Your task to perform on an android device: change text size in settings app Image 0: 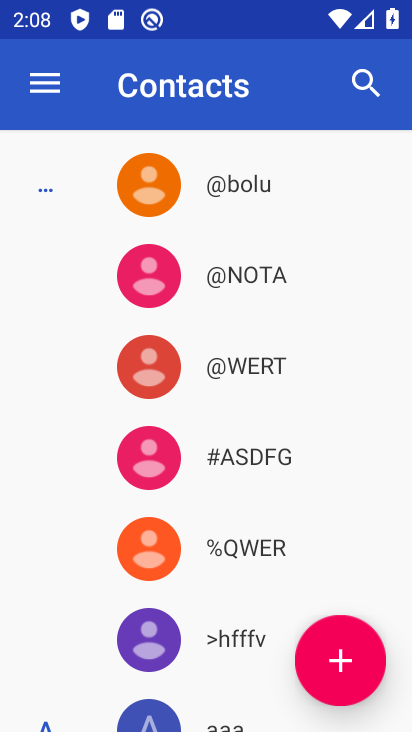
Step 0: press home button
Your task to perform on an android device: change text size in settings app Image 1: 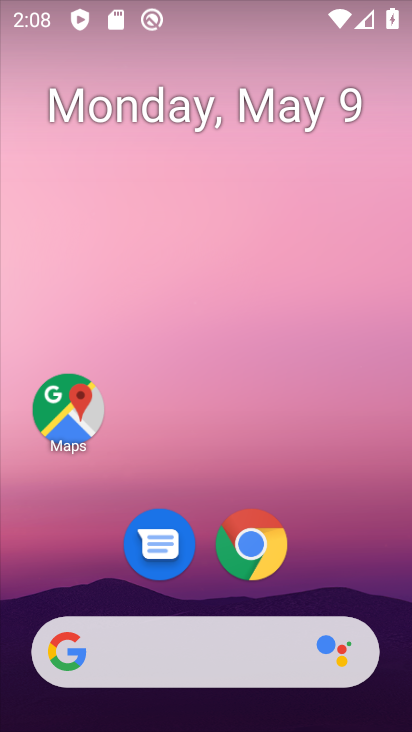
Step 1: drag from (208, 580) to (222, 172)
Your task to perform on an android device: change text size in settings app Image 2: 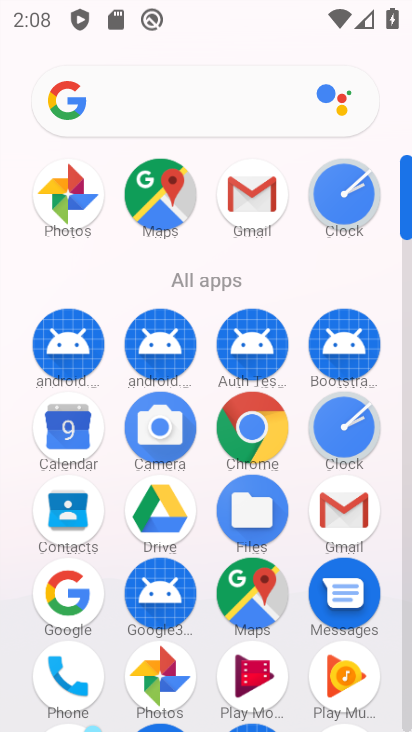
Step 2: drag from (209, 580) to (273, 283)
Your task to perform on an android device: change text size in settings app Image 3: 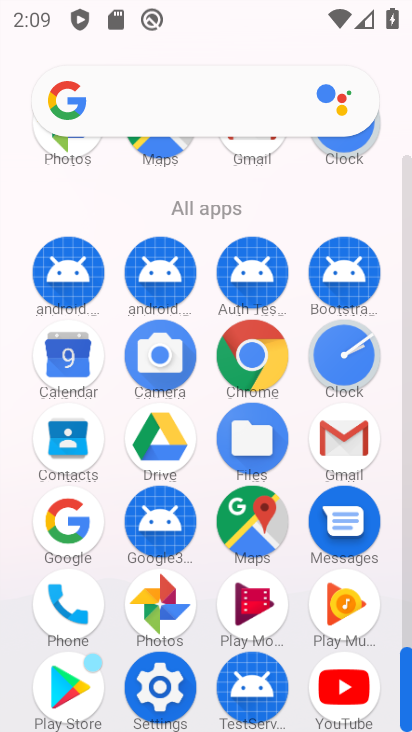
Step 3: drag from (237, 591) to (267, 358)
Your task to perform on an android device: change text size in settings app Image 4: 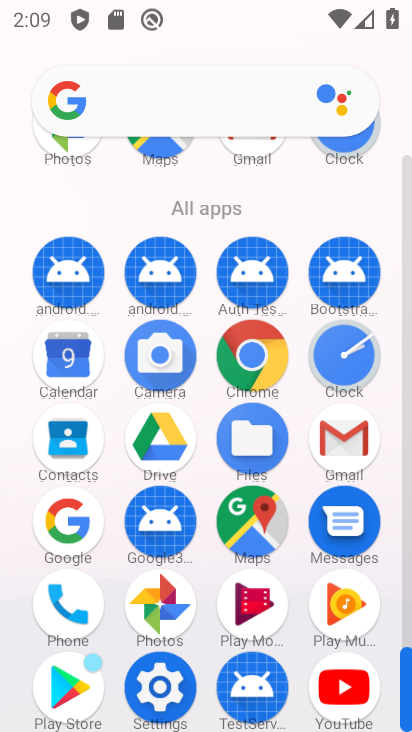
Step 4: click (174, 644)
Your task to perform on an android device: change text size in settings app Image 5: 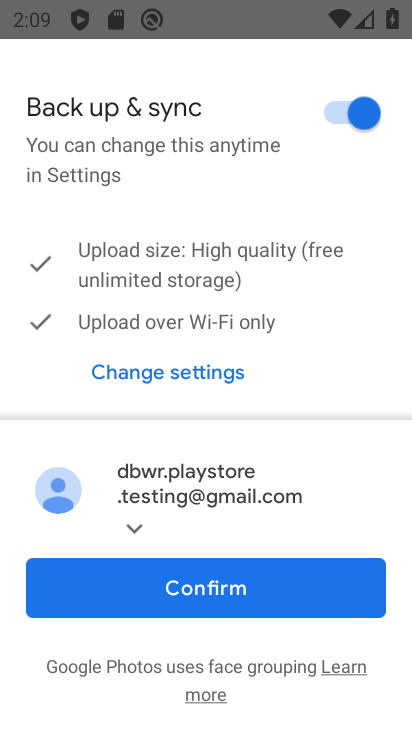
Step 5: click (191, 573)
Your task to perform on an android device: change text size in settings app Image 6: 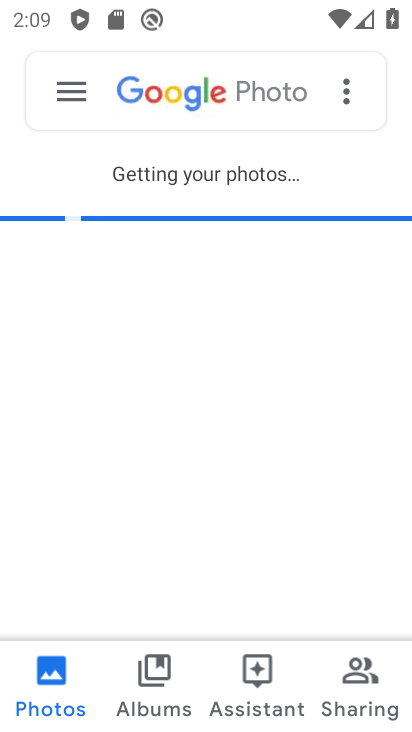
Step 6: press home button
Your task to perform on an android device: change text size in settings app Image 7: 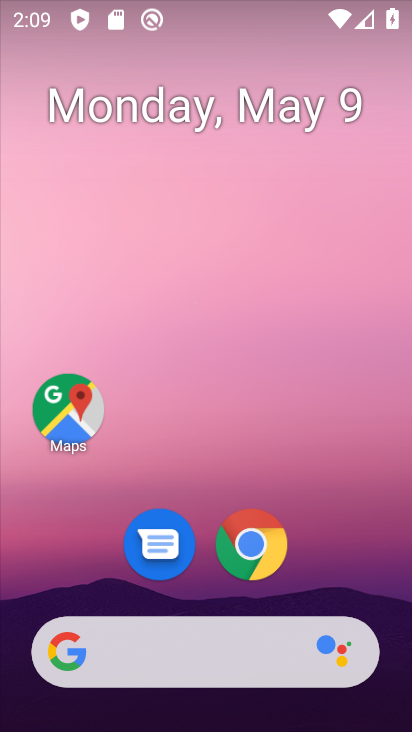
Step 7: drag from (223, 453) to (239, 138)
Your task to perform on an android device: change text size in settings app Image 8: 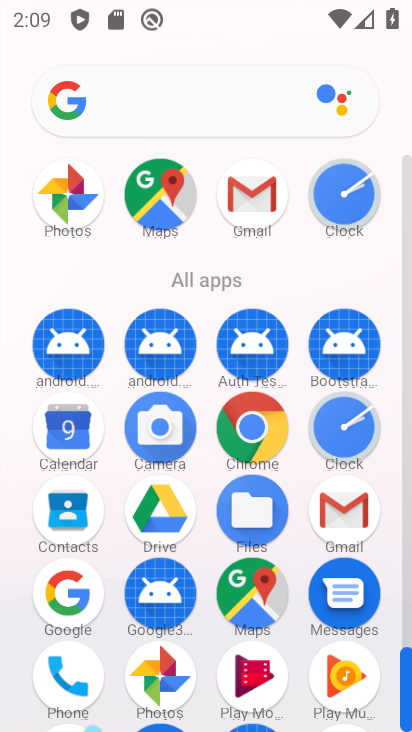
Step 8: drag from (202, 521) to (256, 249)
Your task to perform on an android device: change text size in settings app Image 9: 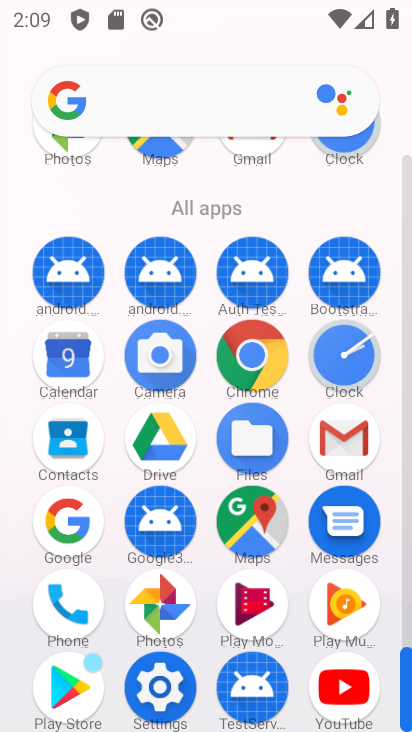
Step 9: click (177, 647)
Your task to perform on an android device: change text size in settings app Image 10: 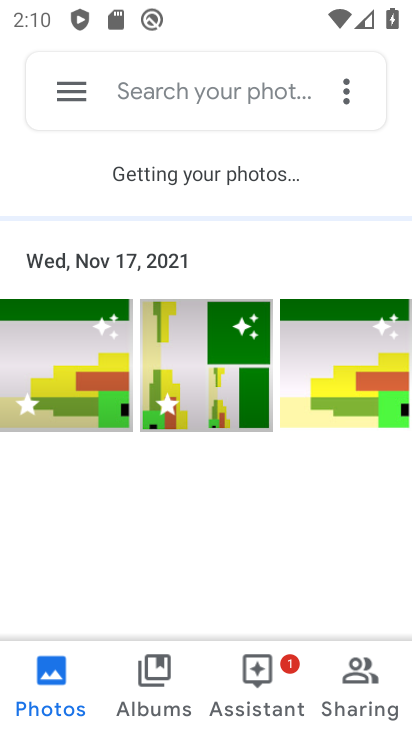
Step 10: press home button
Your task to perform on an android device: change text size in settings app Image 11: 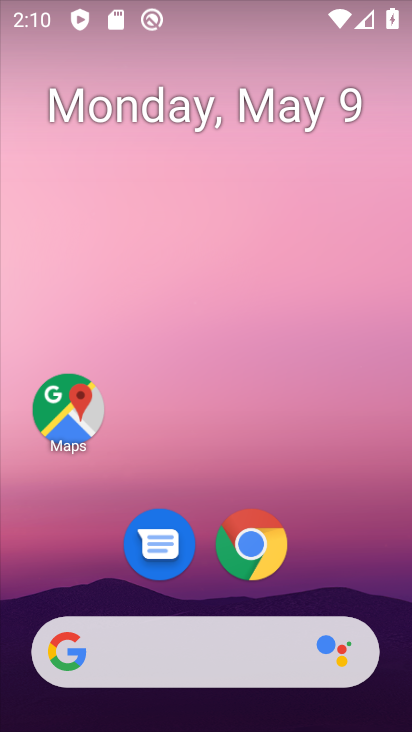
Step 11: drag from (195, 575) to (222, 95)
Your task to perform on an android device: change text size in settings app Image 12: 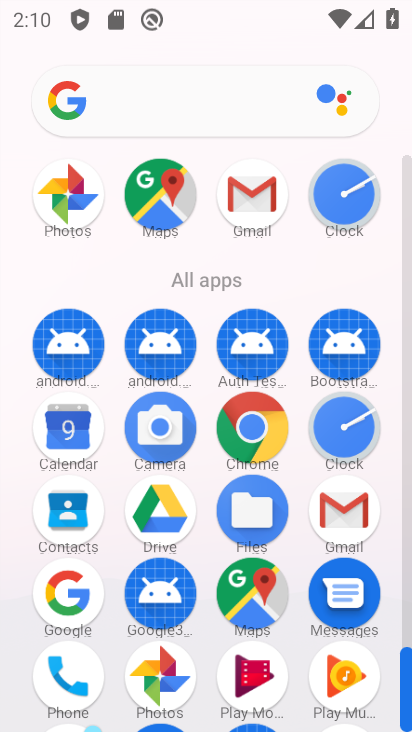
Step 12: drag from (196, 558) to (238, 156)
Your task to perform on an android device: change text size in settings app Image 13: 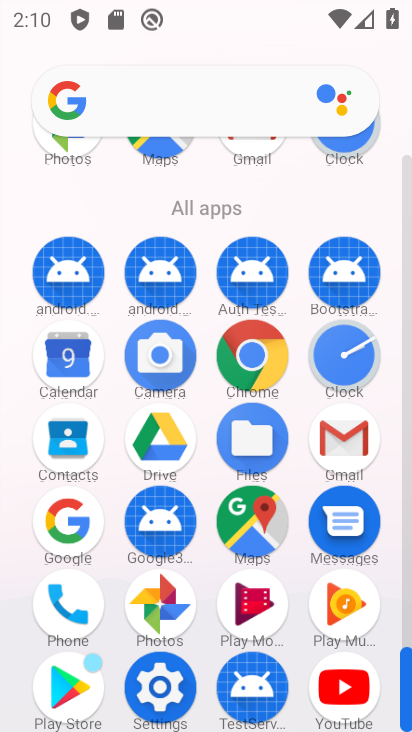
Step 13: click (158, 670)
Your task to perform on an android device: change text size in settings app Image 14: 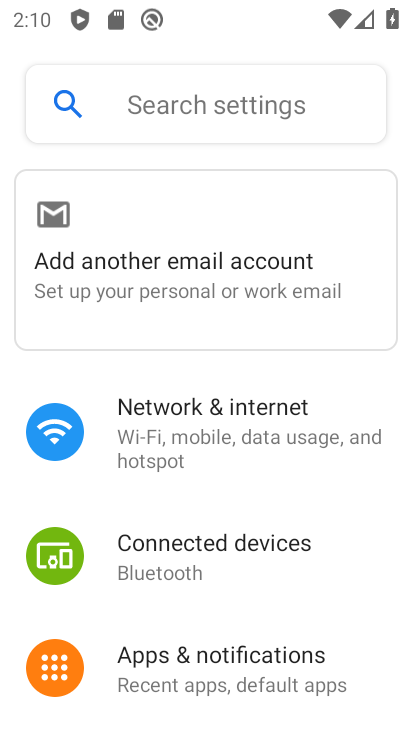
Step 14: drag from (222, 619) to (275, 303)
Your task to perform on an android device: change text size in settings app Image 15: 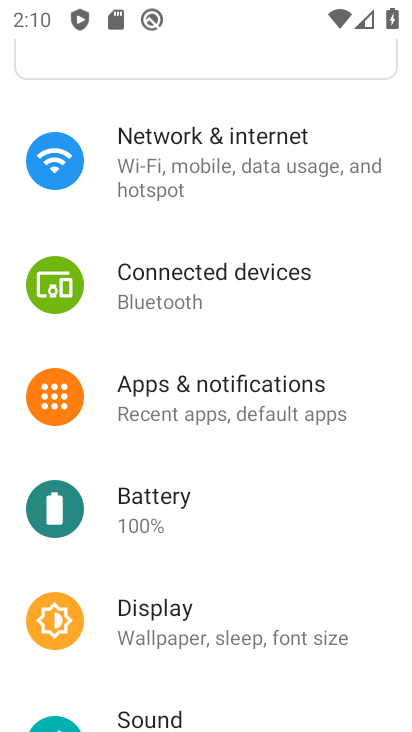
Step 15: drag from (258, 529) to (278, 298)
Your task to perform on an android device: change text size in settings app Image 16: 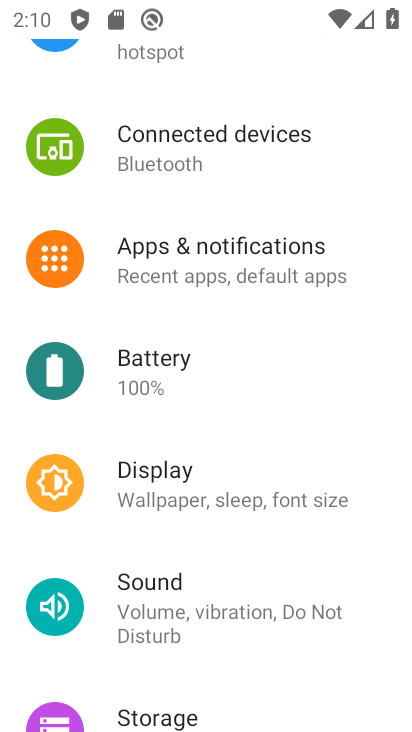
Step 16: click (195, 487)
Your task to perform on an android device: change text size in settings app Image 17: 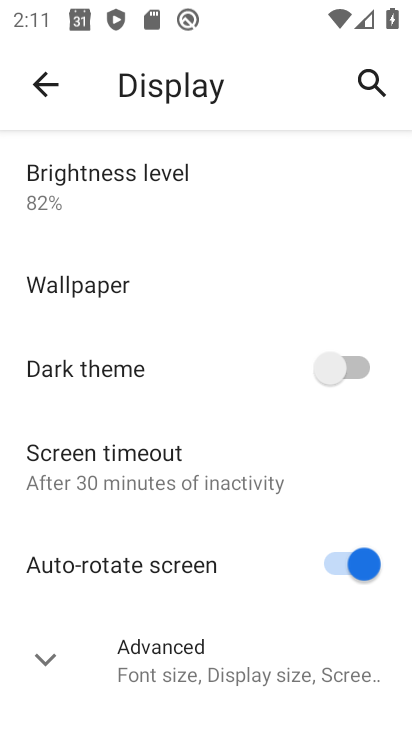
Step 17: click (99, 651)
Your task to perform on an android device: change text size in settings app Image 18: 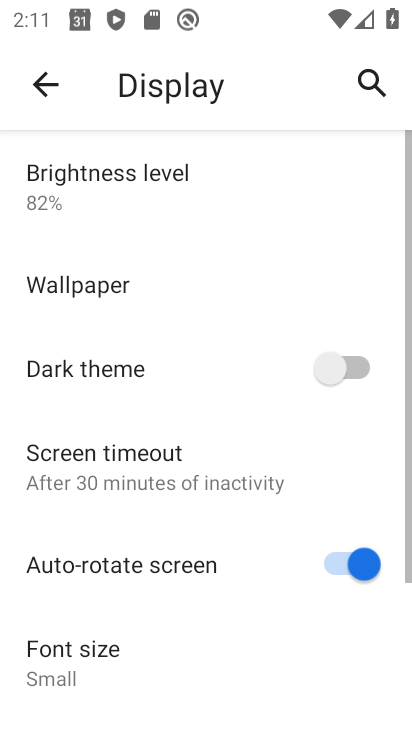
Step 18: drag from (124, 645) to (202, 441)
Your task to perform on an android device: change text size in settings app Image 19: 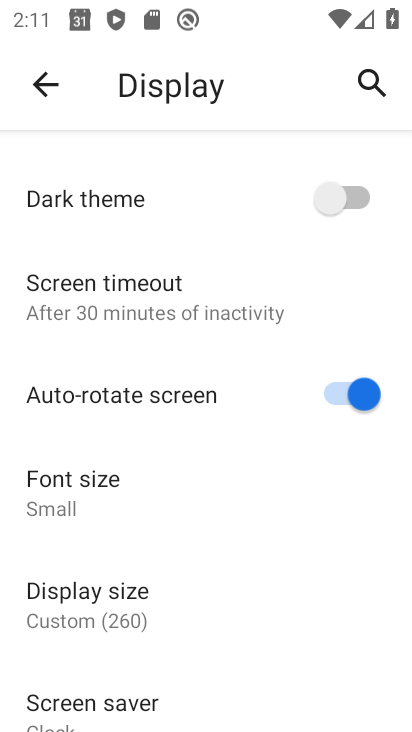
Step 19: click (96, 509)
Your task to perform on an android device: change text size in settings app Image 20: 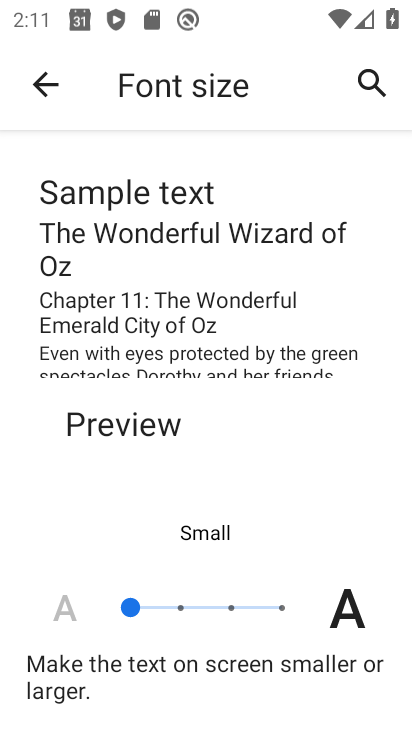
Step 20: click (172, 609)
Your task to perform on an android device: change text size in settings app Image 21: 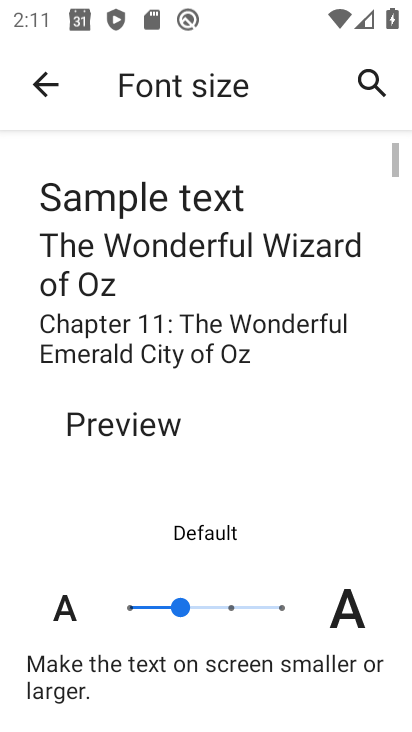
Step 21: task complete